Your task to perform on an android device: Open calendar and show me the second week of next month Image 0: 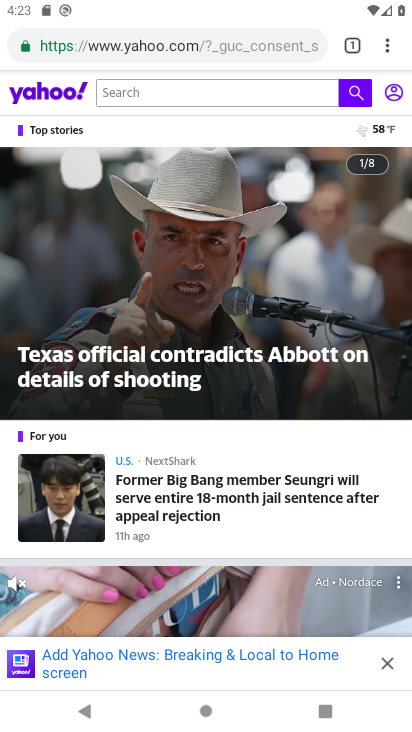
Step 0: press home button
Your task to perform on an android device: Open calendar and show me the second week of next month Image 1: 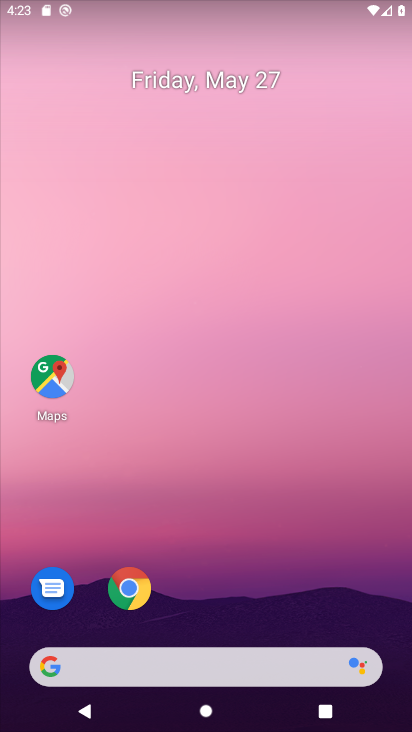
Step 1: drag from (145, 729) to (134, 74)
Your task to perform on an android device: Open calendar and show me the second week of next month Image 2: 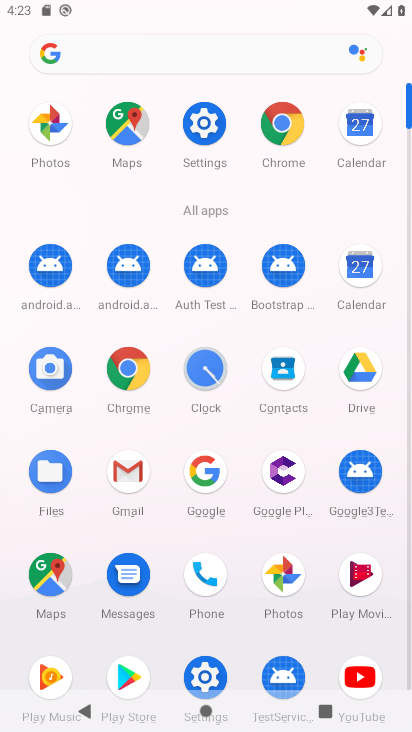
Step 2: click (364, 136)
Your task to perform on an android device: Open calendar and show me the second week of next month Image 3: 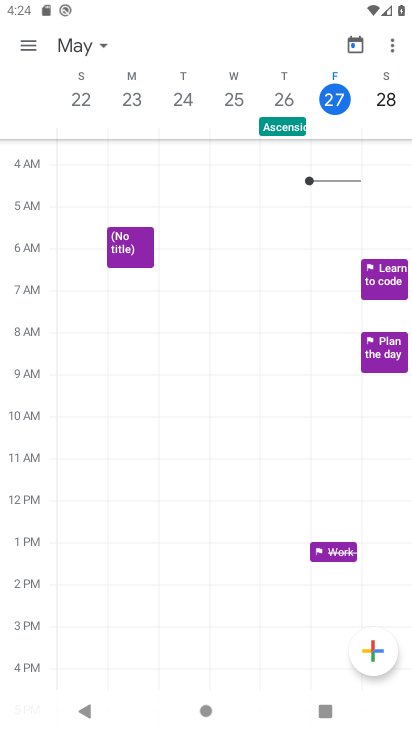
Step 3: click (99, 49)
Your task to perform on an android device: Open calendar and show me the second week of next month Image 4: 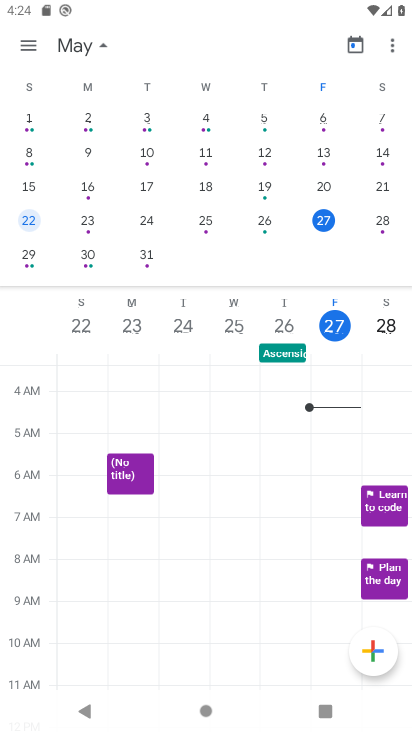
Step 4: drag from (381, 256) to (0, 240)
Your task to perform on an android device: Open calendar and show me the second week of next month Image 5: 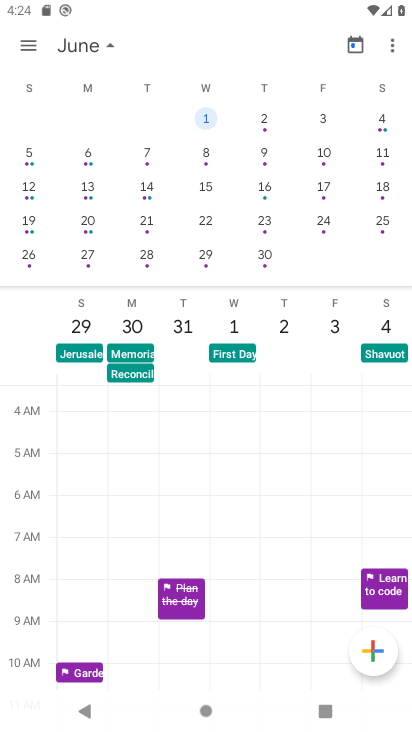
Step 5: click (95, 46)
Your task to perform on an android device: Open calendar and show me the second week of next month Image 6: 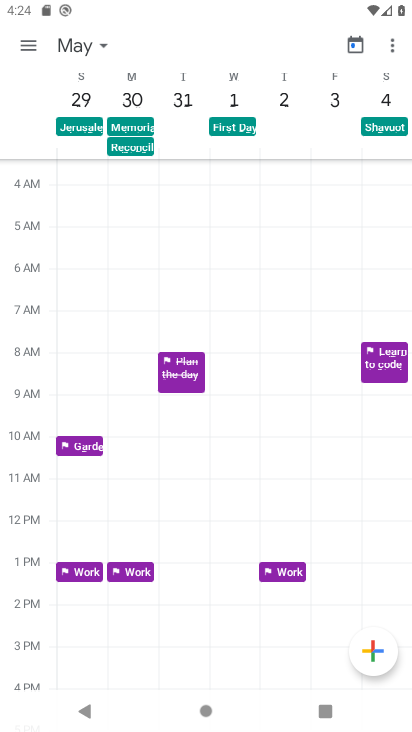
Step 6: task complete